Your task to perform on an android device: make emails show in primary in the gmail app Image 0: 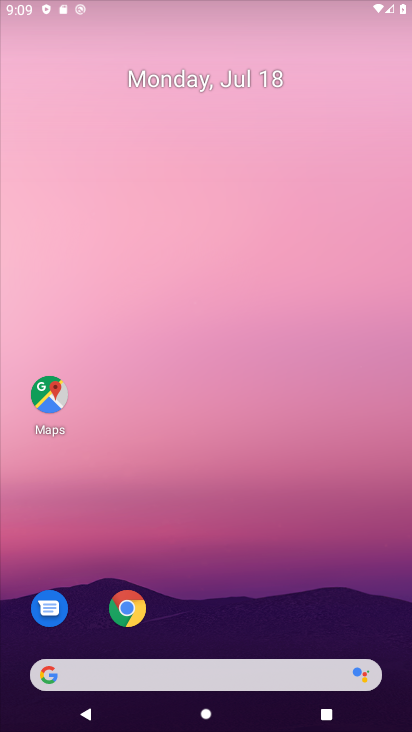
Step 0: drag from (303, 695) to (211, 134)
Your task to perform on an android device: make emails show in primary in the gmail app Image 1: 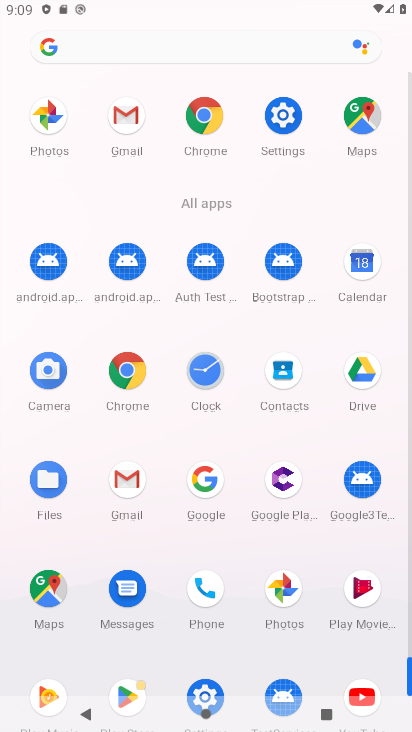
Step 1: click (121, 475)
Your task to perform on an android device: make emails show in primary in the gmail app Image 2: 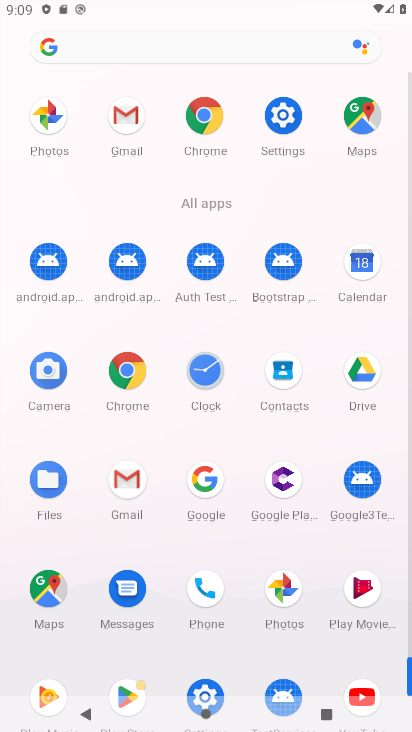
Step 2: click (124, 473)
Your task to perform on an android device: make emails show in primary in the gmail app Image 3: 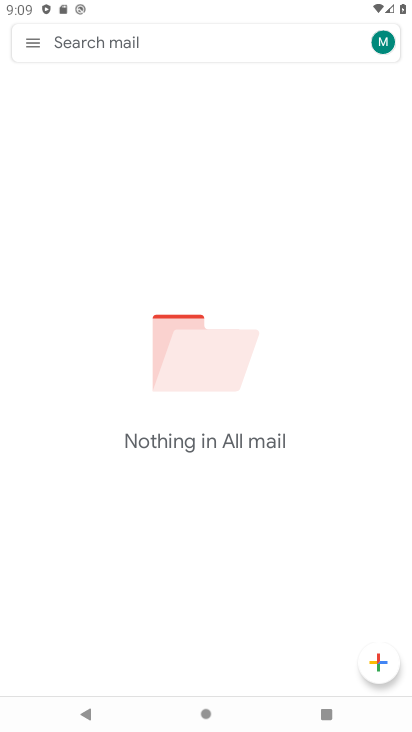
Step 3: drag from (36, 41) to (34, 96)
Your task to perform on an android device: make emails show in primary in the gmail app Image 4: 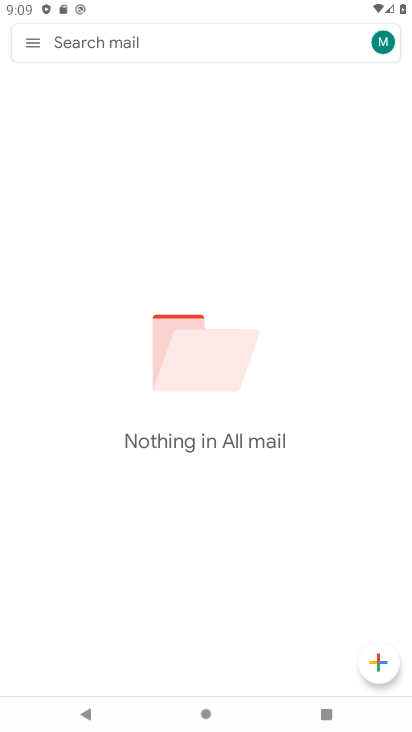
Step 4: click (31, 49)
Your task to perform on an android device: make emails show in primary in the gmail app Image 5: 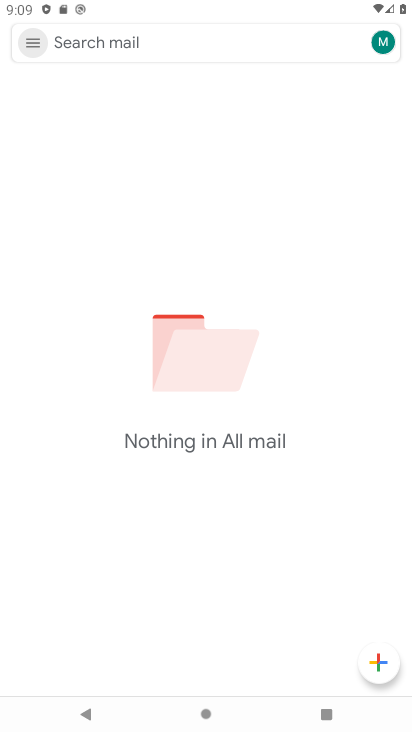
Step 5: click (35, 47)
Your task to perform on an android device: make emails show in primary in the gmail app Image 6: 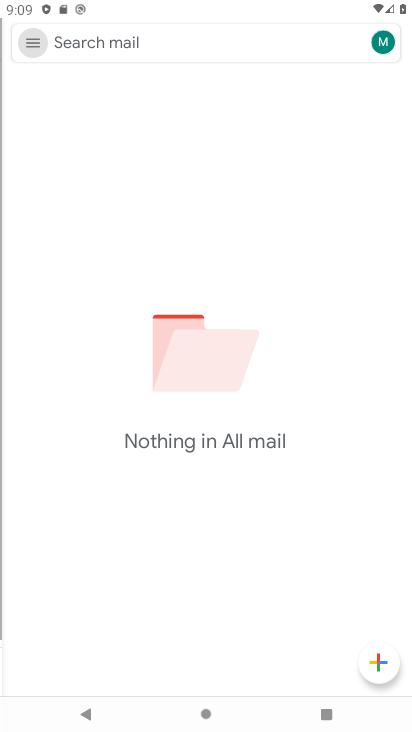
Step 6: click (35, 47)
Your task to perform on an android device: make emails show in primary in the gmail app Image 7: 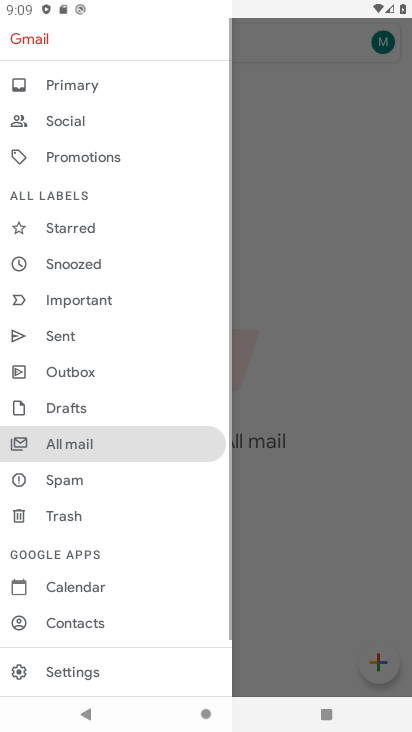
Step 7: click (35, 47)
Your task to perform on an android device: make emails show in primary in the gmail app Image 8: 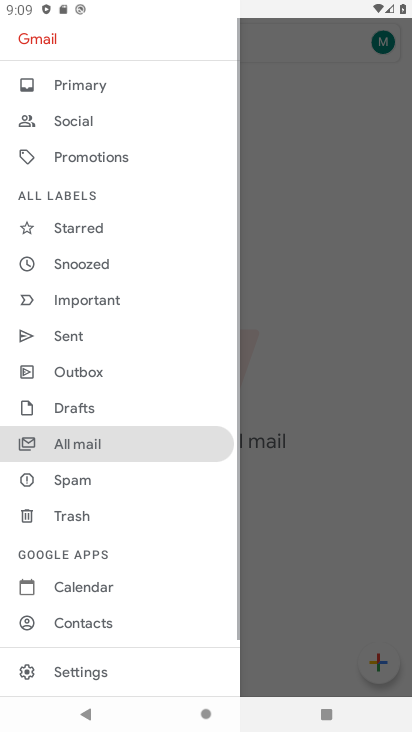
Step 8: click (35, 47)
Your task to perform on an android device: make emails show in primary in the gmail app Image 9: 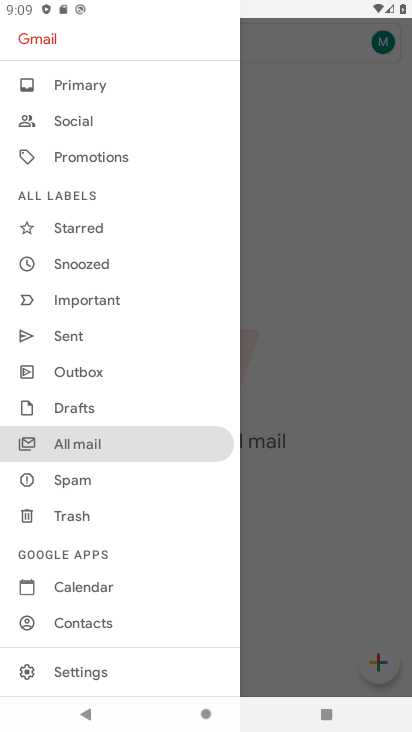
Step 9: click (74, 671)
Your task to perform on an android device: make emails show in primary in the gmail app Image 10: 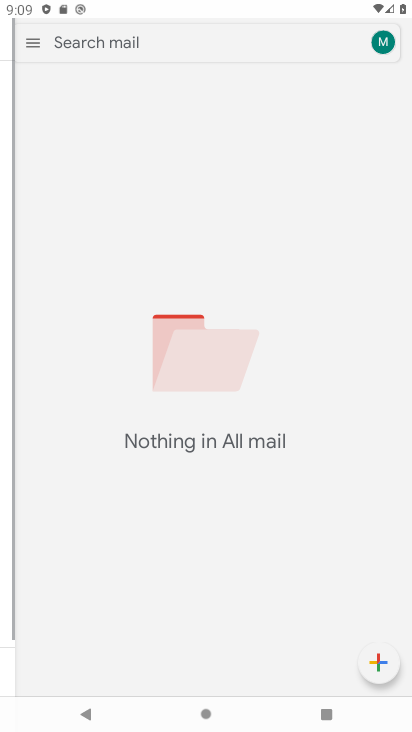
Step 10: click (74, 673)
Your task to perform on an android device: make emails show in primary in the gmail app Image 11: 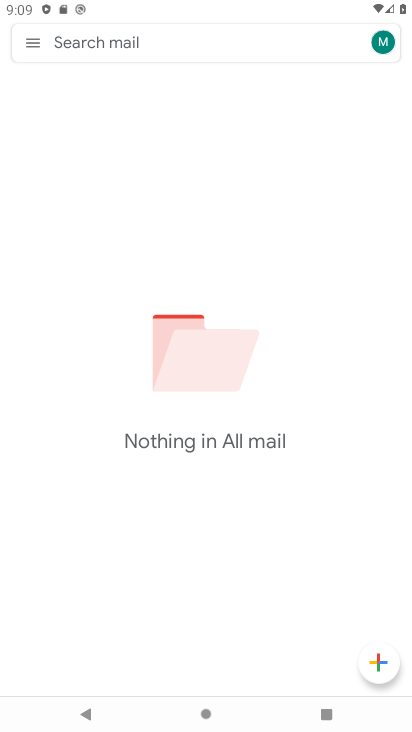
Step 11: click (74, 673)
Your task to perform on an android device: make emails show in primary in the gmail app Image 12: 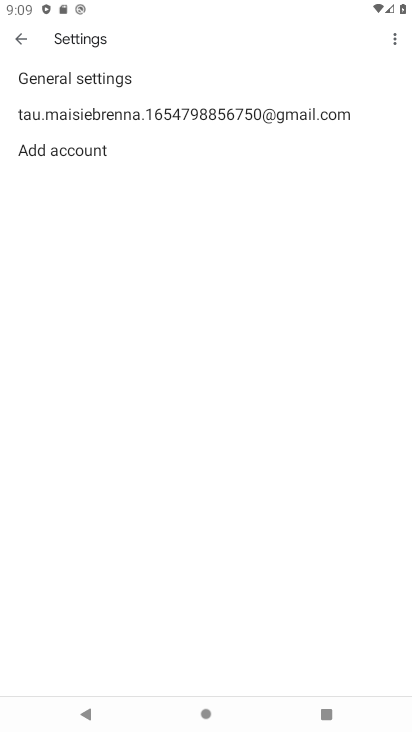
Step 12: click (211, 113)
Your task to perform on an android device: make emails show in primary in the gmail app Image 13: 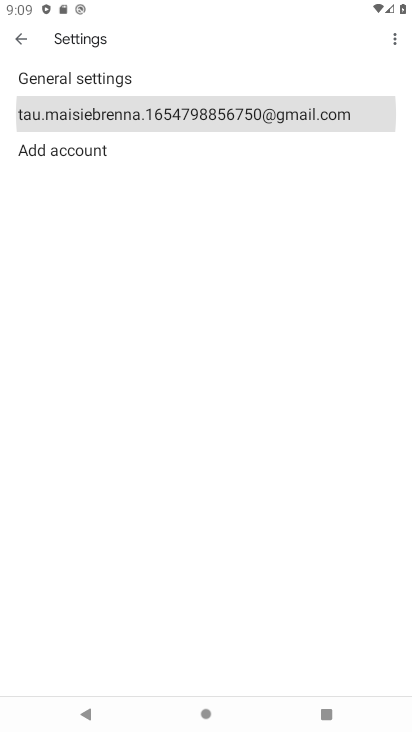
Step 13: click (211, 113)
Your task to perform on an android device: make emails show in primary in the gmail app Image 14: 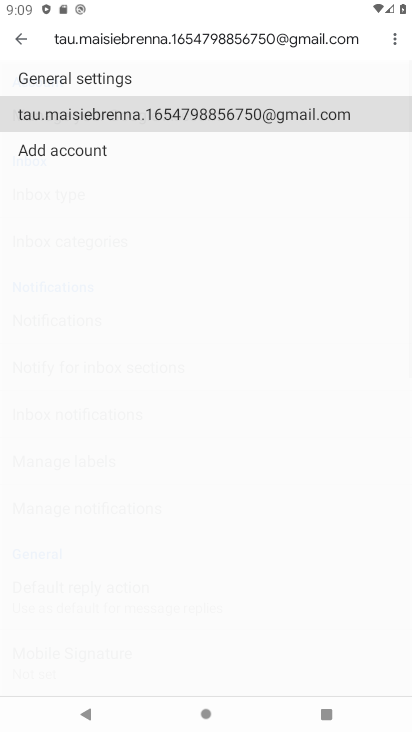
Step 14: click (212, 113)
Your task to perform on an android device: make emails show in primary in the gmail app Image 15: 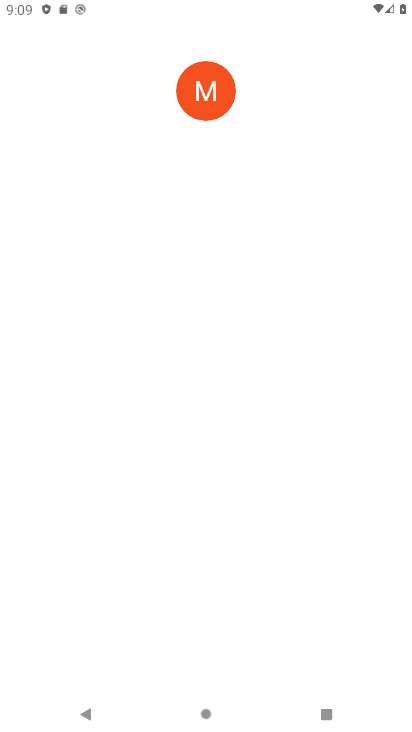
Step 15: press back button
Your task to perform on an android device: make emails show in primary in the gmail app Image 16: 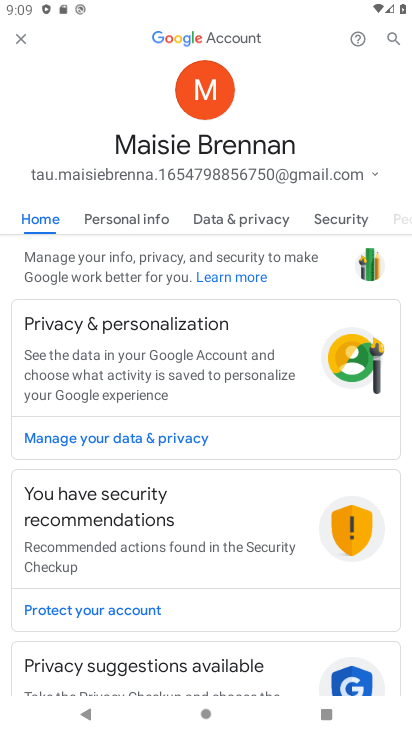
Step 16: click (25, 47)
Your task to perform on an android device: make emails show in primary in the gmail app Image 17: 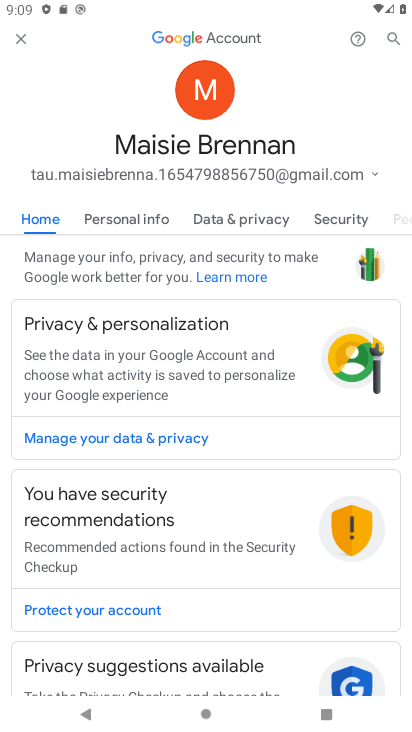
Step 17: click (19, 65)
Your task to perform on an android device: make emails show in primary in the gmail app Image 18: 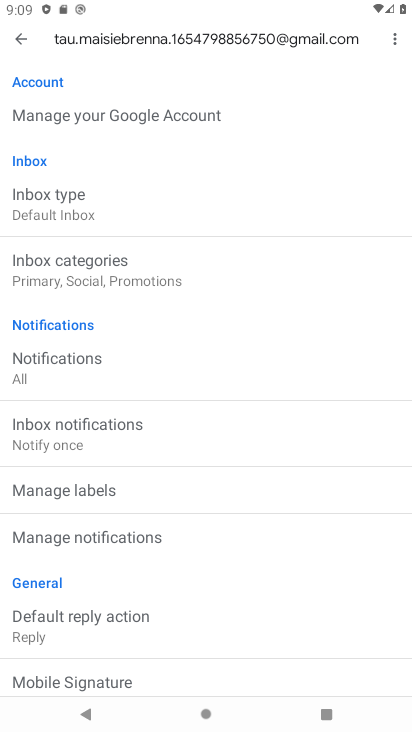
Step 18: task complete